Your task to perform on an android device: What's on my calendar tomorrow? Image 0: 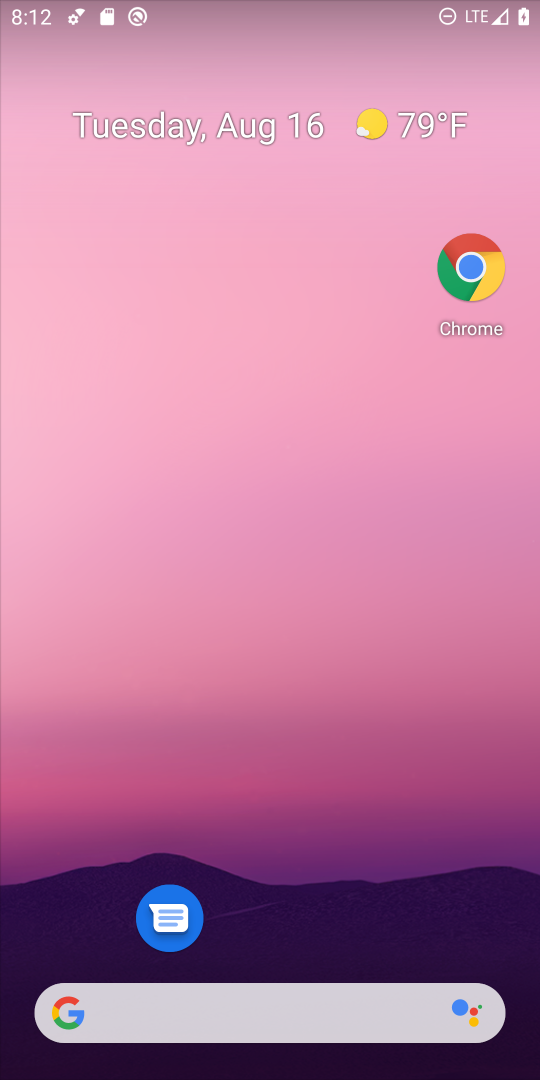
Step 0: drag from (276, 844) to (314, 382)
Your task to perform on an android device: What's on my calendar tomorrow? Image 1: 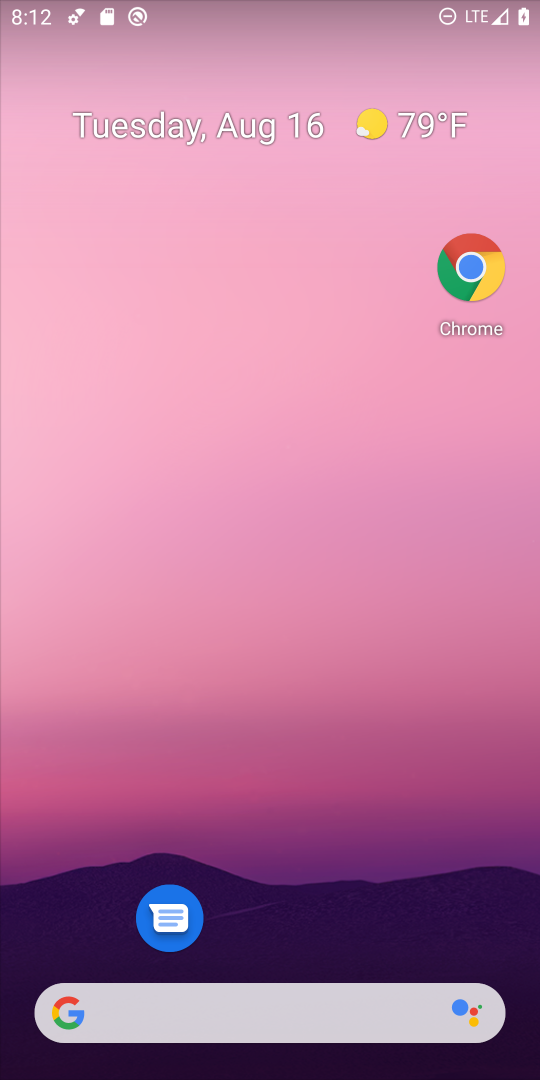
Step 1: drag from (289, 790) to (360, 172)
Your task to perform on an android device: What's on my calendar tomorrow? Image 2: 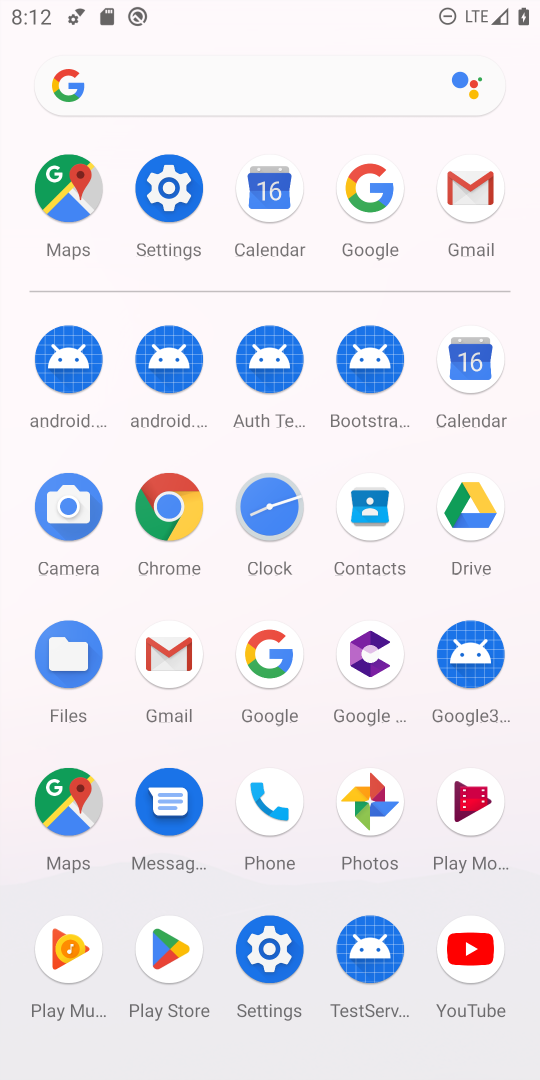
Step 2: click (477, 377)
Your task to perform on an android device: What's on my calendar tomorrow? Image 3: 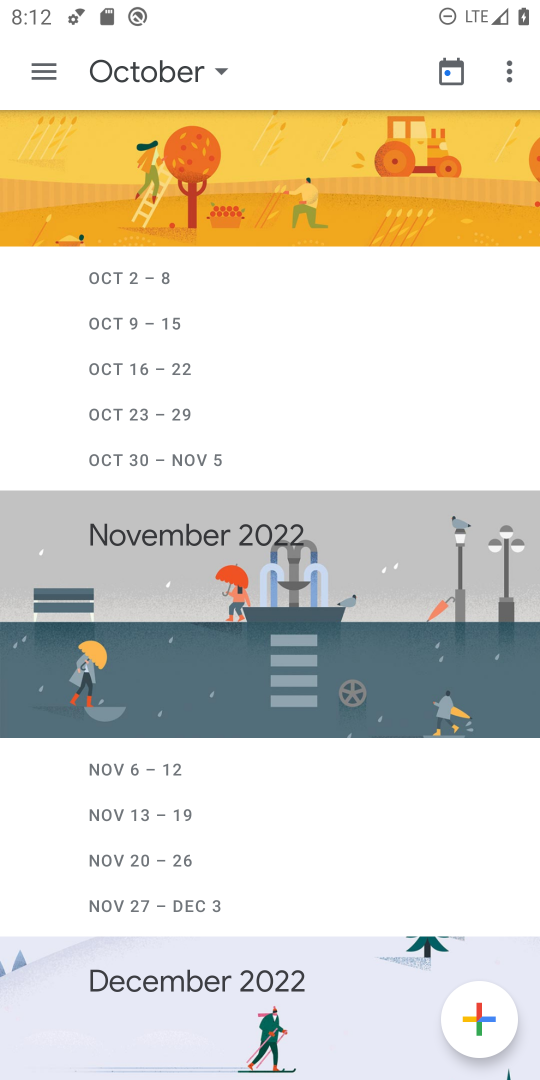
Step 3: click (153, 68)
Your task to perform on an android device: What's on my calendar tomorrow? Image 4: 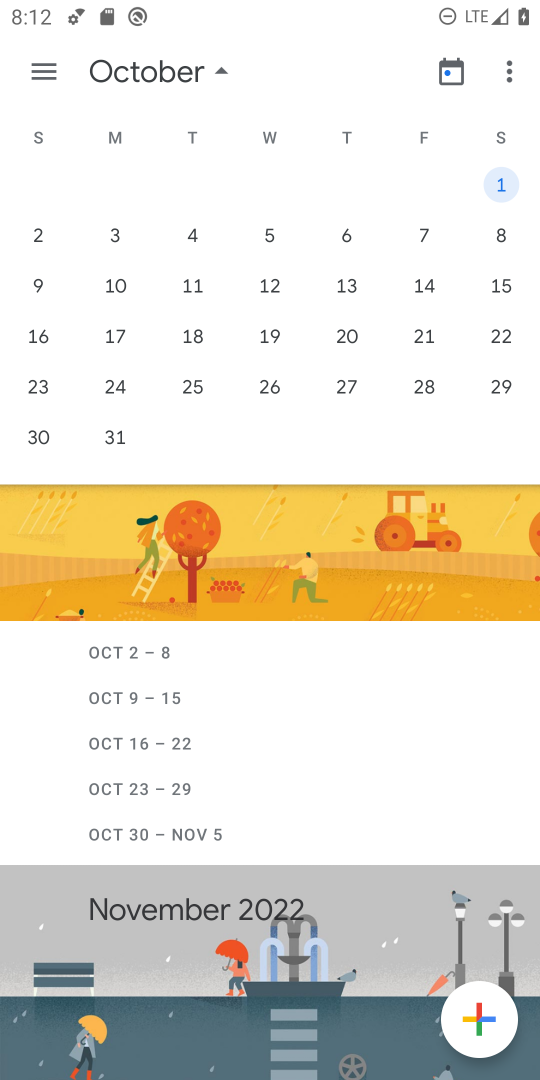
Step 4: drag from (139, 251) to (515, 378)
Your task to perform on an android device: What's on my calendar tomorrow? Image 5: 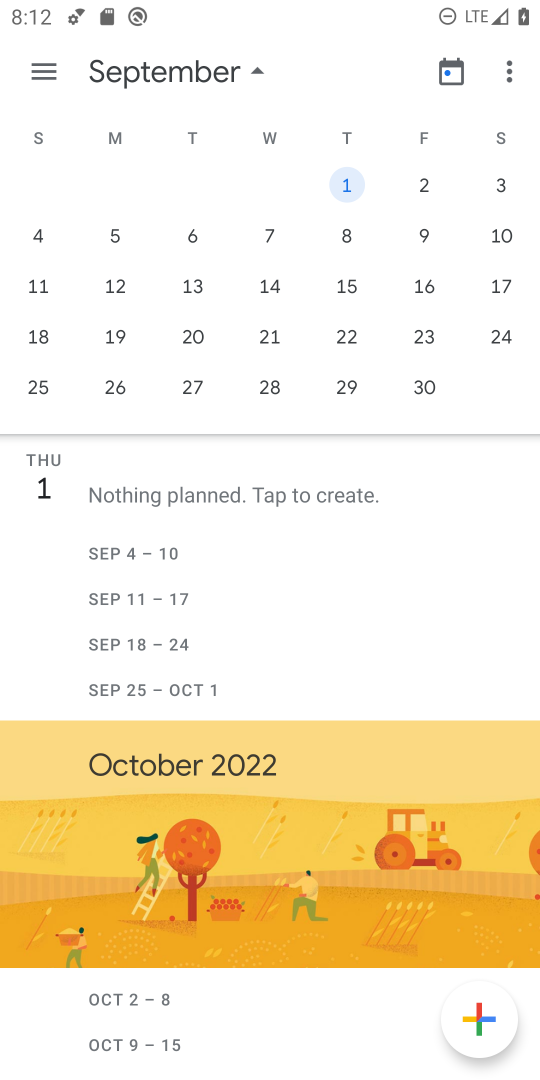
Step 5: drag from (126, 268) to (485, 375)
Your task to perform on an android device: What's on my calendar tomorrow? Image 6: 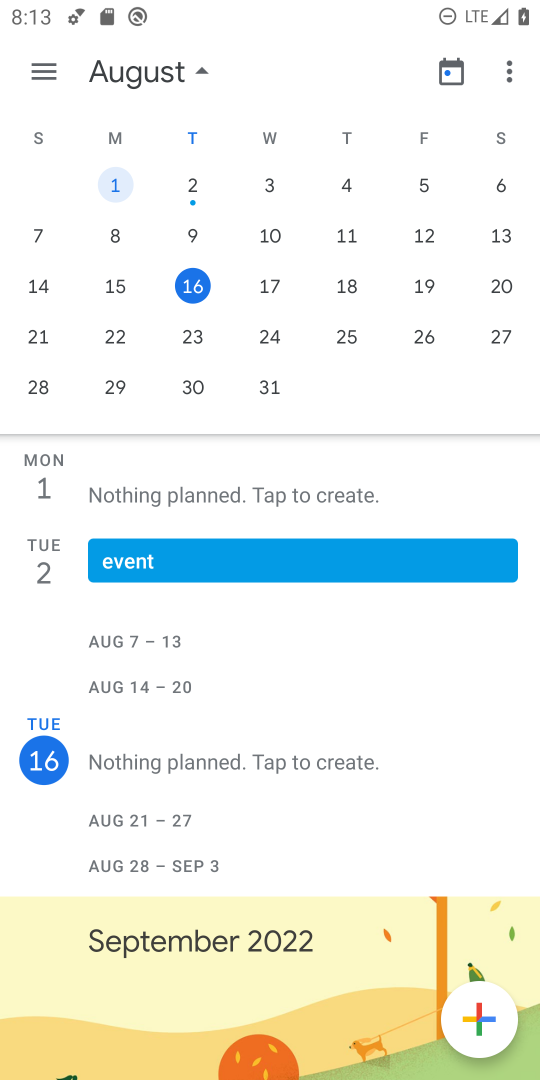
Step 6: click (257, 291)
Your task to perform on an android device: What's on my calendar tomorrow? Image 7: 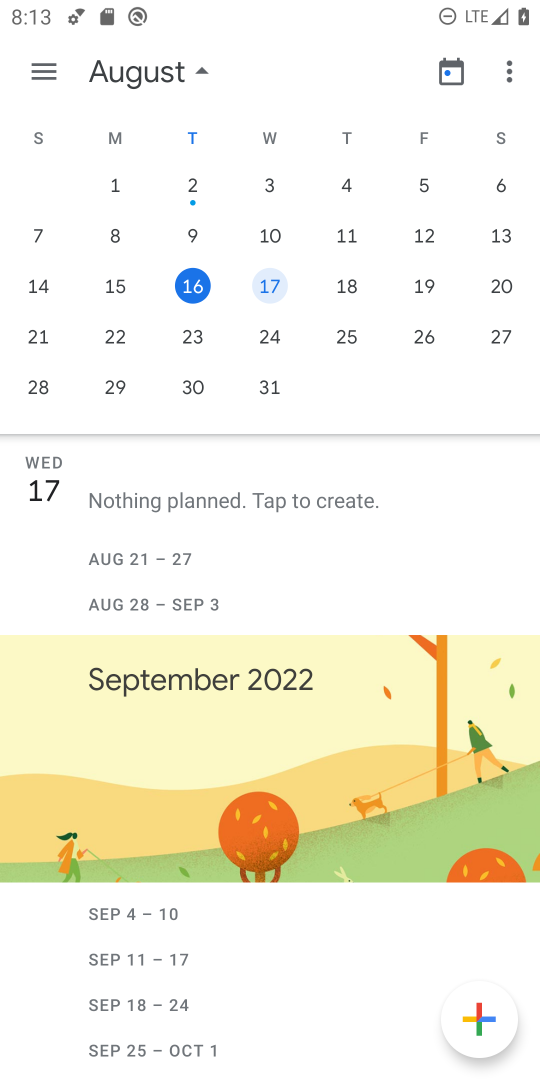
Step 7: task complete